Your task to perform on an android device: Clear all items from cart on newegg.com. Add alienware aurora to the cart on newegg.com Image 0: 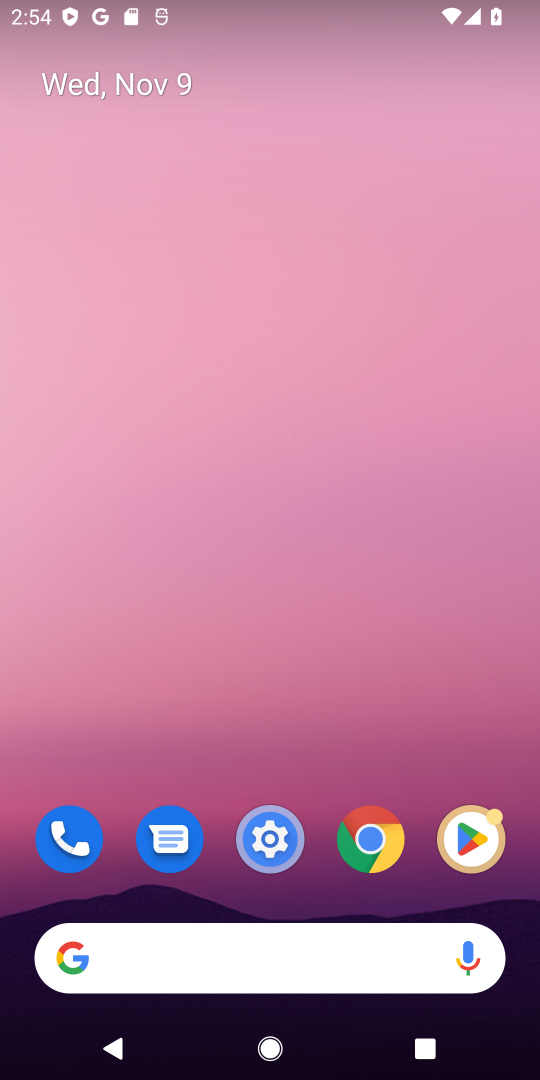
Step 0: drag from (214, 892) to (276, 52)
Your task to perform on an android device: Clear all items from cart on newegg.com. Add alienware aurora to the cart on newegg.com Image 1: 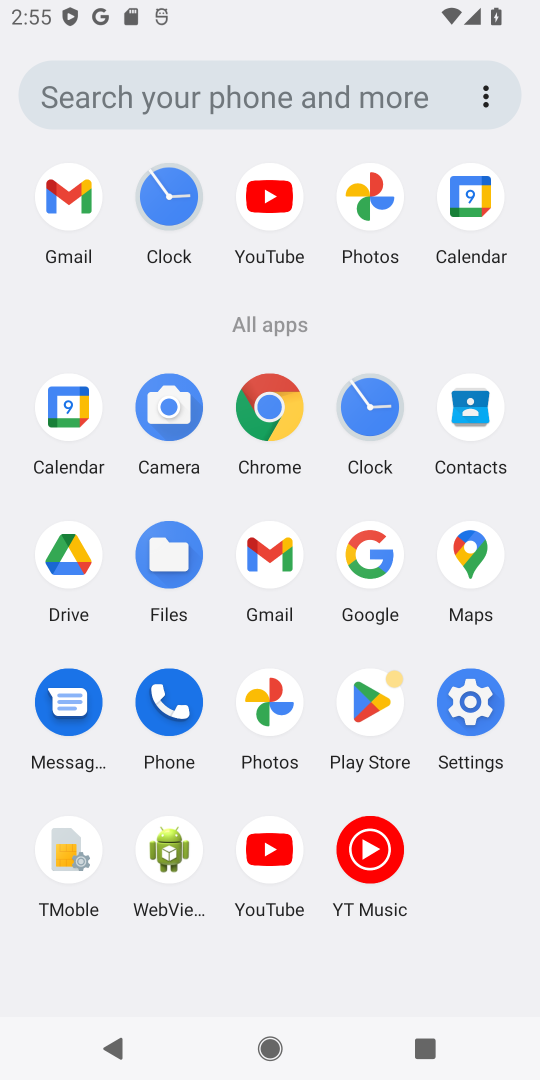
Step 1: click (277, 415)
Your task to perform on an android device: Clear all items from cart on newegg.com. Add alienware aurora to the cart on newegg.com Image 2: 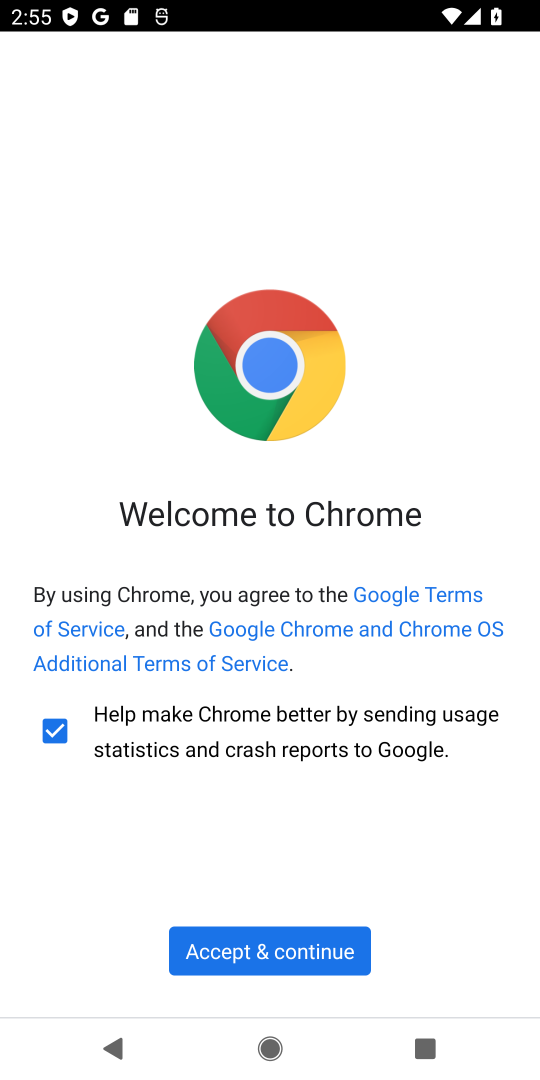
Step 2: click (279, 947)
Your task to perform on an android device: Clear all items from cart on newegg.com. Add alienware aurora to the cart on newegg.com Image 3: 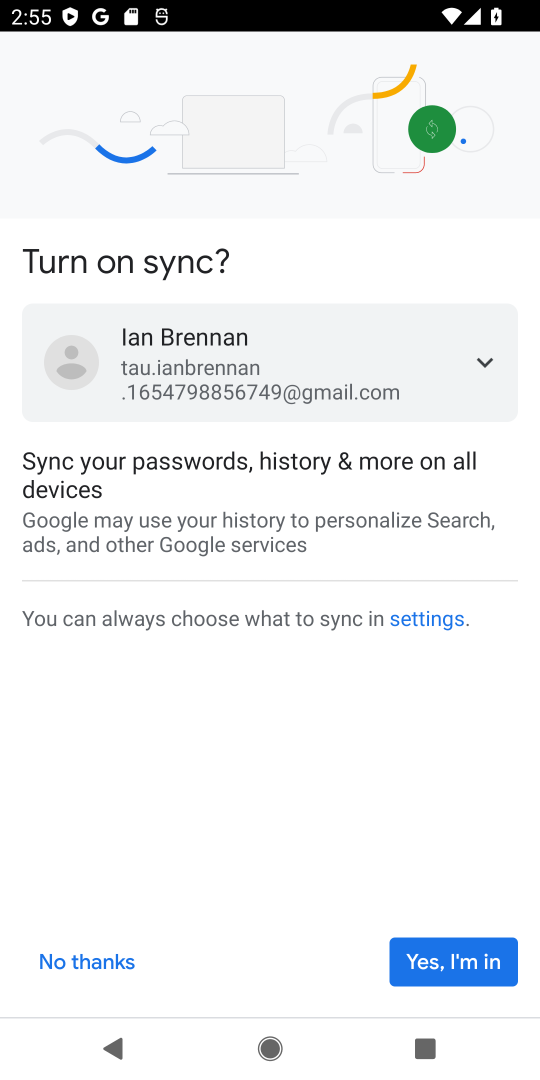
Step 3: click (429, 965)
Your task to perform on an android device: Clear all items from cart on newegg.com. Add alienware aurora to the cart on newegg.com Image 4: 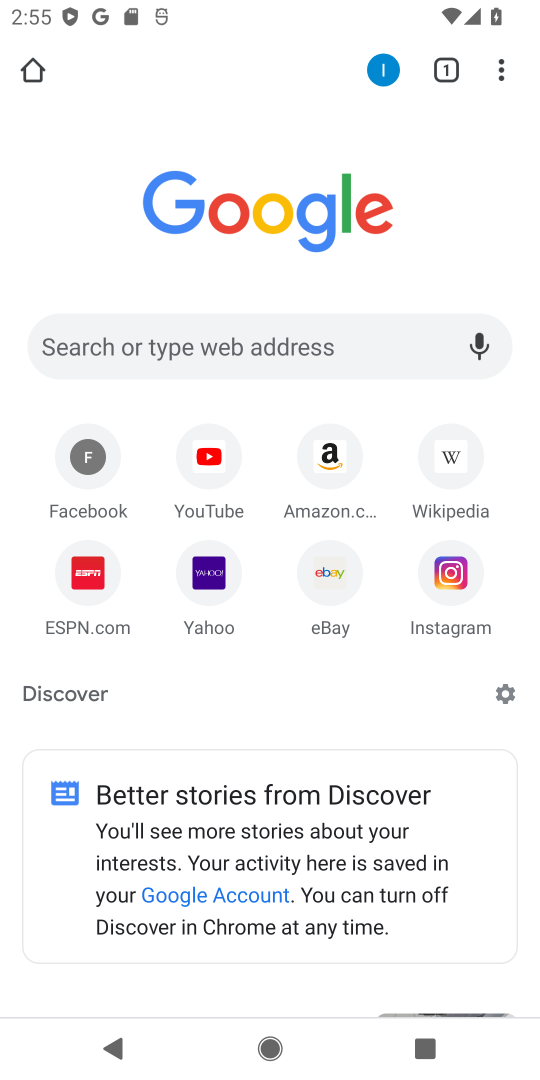
Step 4: click (315, 346)
Your task to perform on an android device: Clear all items from cart on newegg.com. Add alienware aurora to the cart on newegg.com Image 5: 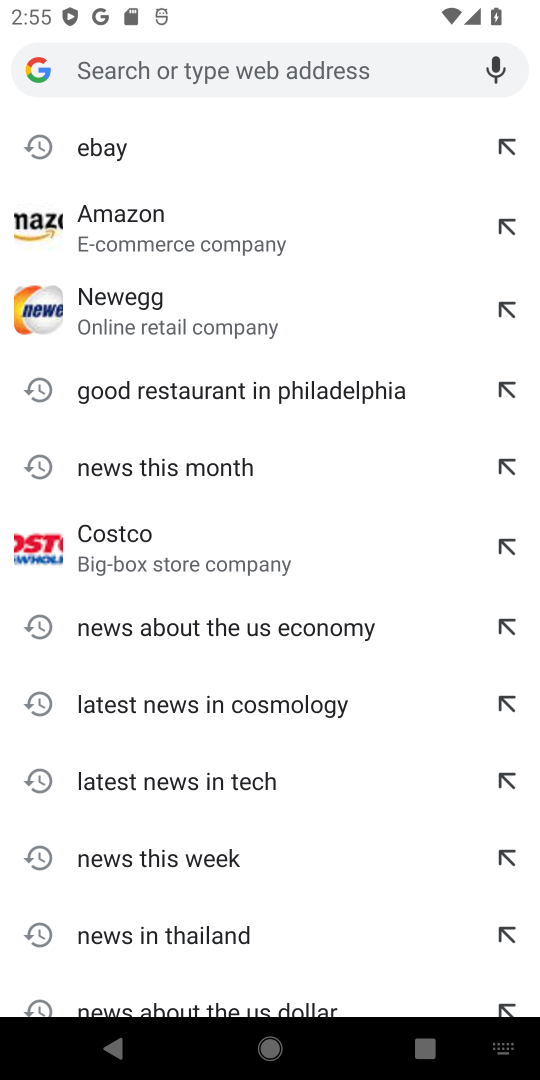
Step 5: click (199, 326)
Your task to perform on an android device: Clear all items from cart on newegg.com. Add alienware aurora to the cart on newegg.com Image 6: 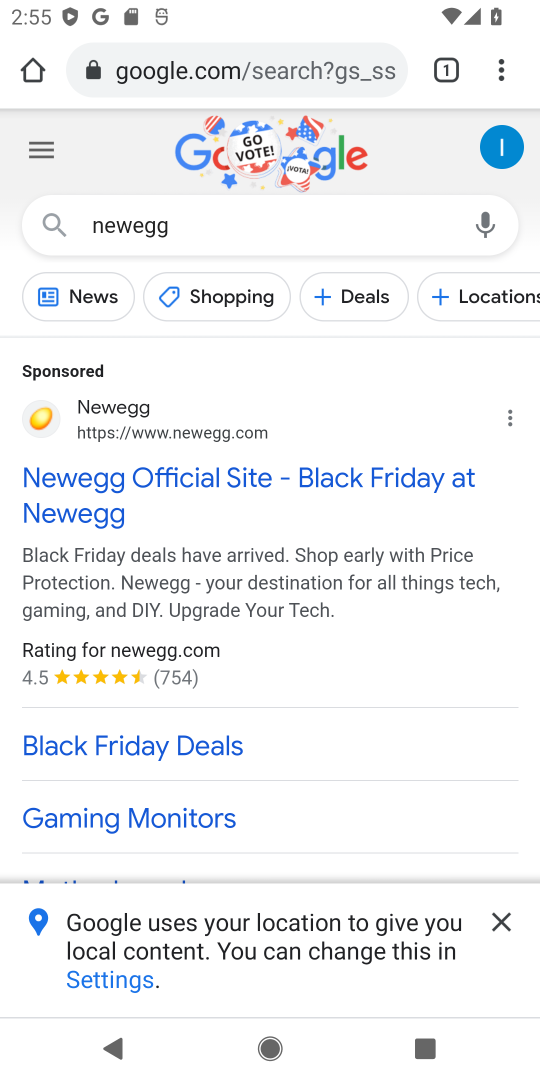
Step 6: drag from (311, 828) to (316, 248)
Your task to perform on an android device: Clear all items from cart on newegg.com. Add alienware aurora to the cart on newegg.com Image 7: 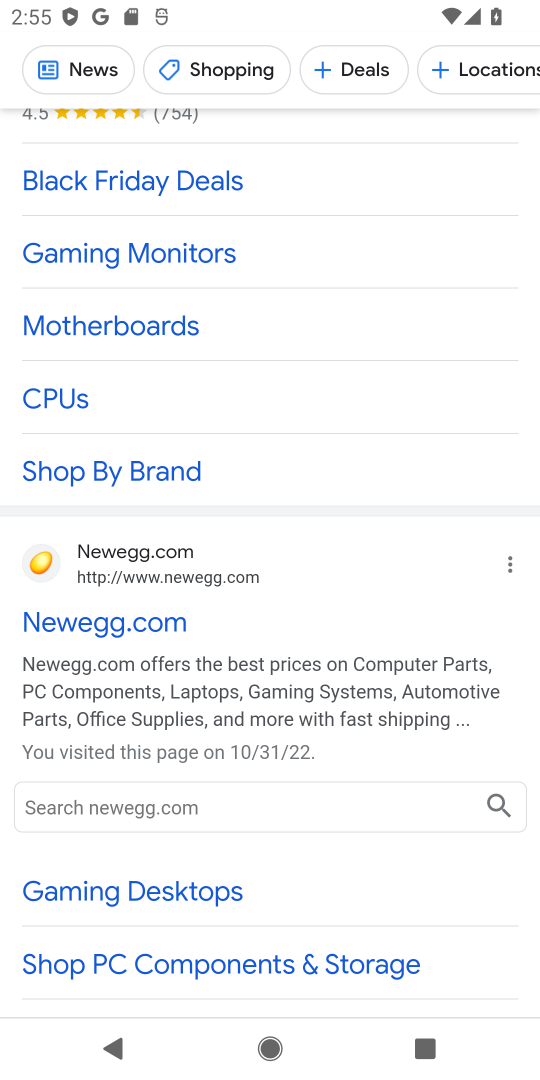
Step 7: click (154, 633)
Your task to perform on an android device: Clear all items from cart on newegg.com. Add alienware aurora to the cart on newegg.com Image 8: 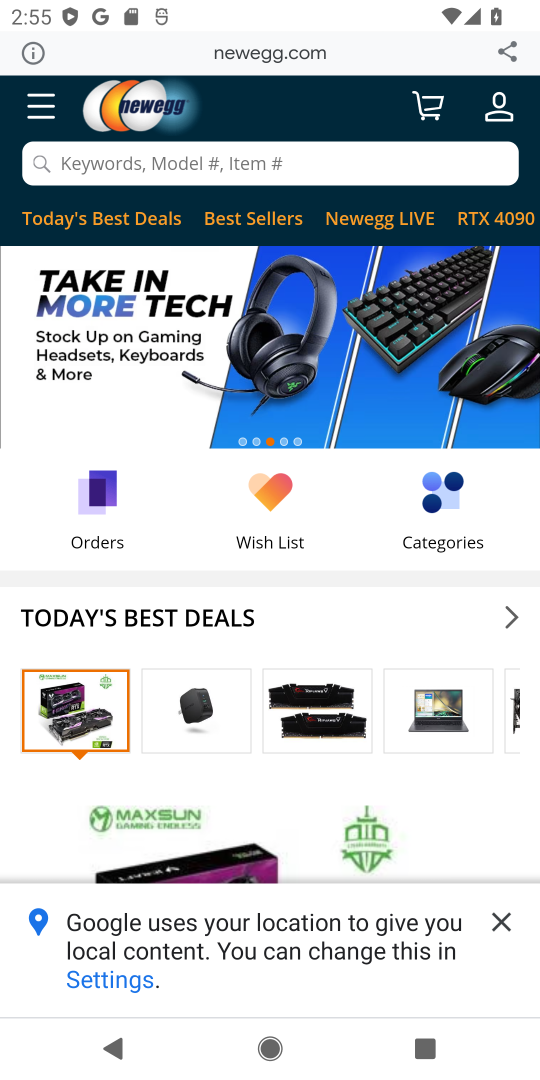
Step 8: click (439, 102)
Your task to perform on an android device: Clear all items from cart on newegg.com. Add alienware aurora to the cart on newegg.com Image 9: 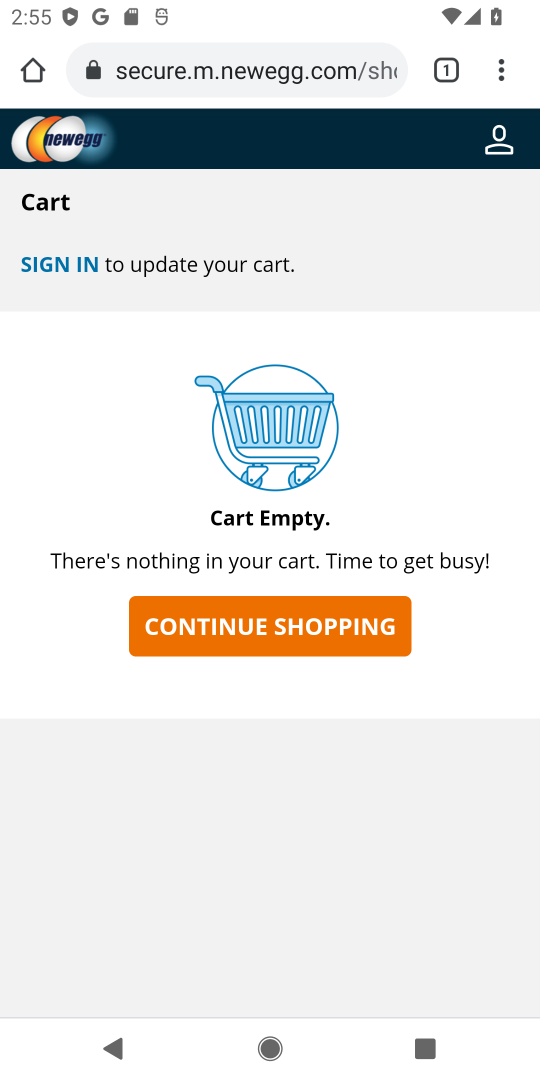
Step 9: click (262, 622)
Your task to perform on an android device: Clear all items from cart on newegg.com. Add alienware aurora to the cart on newegg.com Image 10: 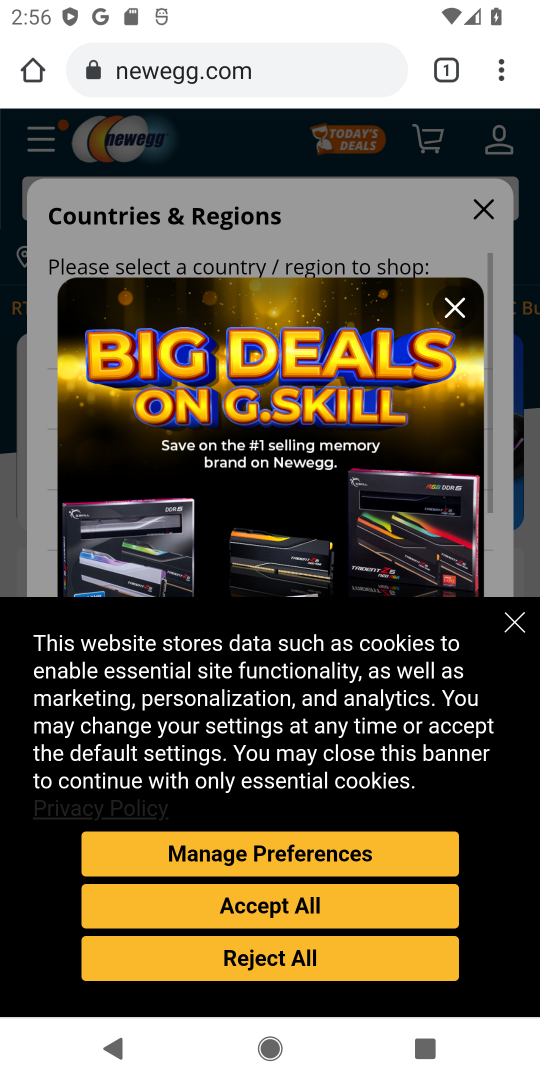
Step 10: click (310, 903)
Your task to perform on an android device: Clear all items from cart on newegg.com. Add alienware aurora to the cart on newegg.com Image 11: 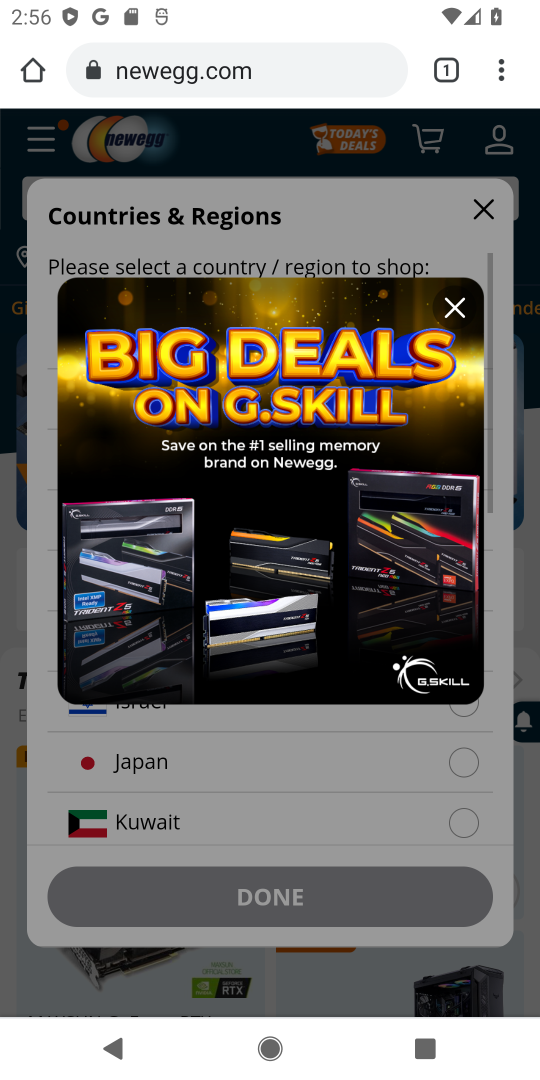
Step 11: click (456, 304)
Your task to perform on an android device: Clear all items from cart on newegg.com. Add alienware aurora to the cart on newegg.com Image 12: 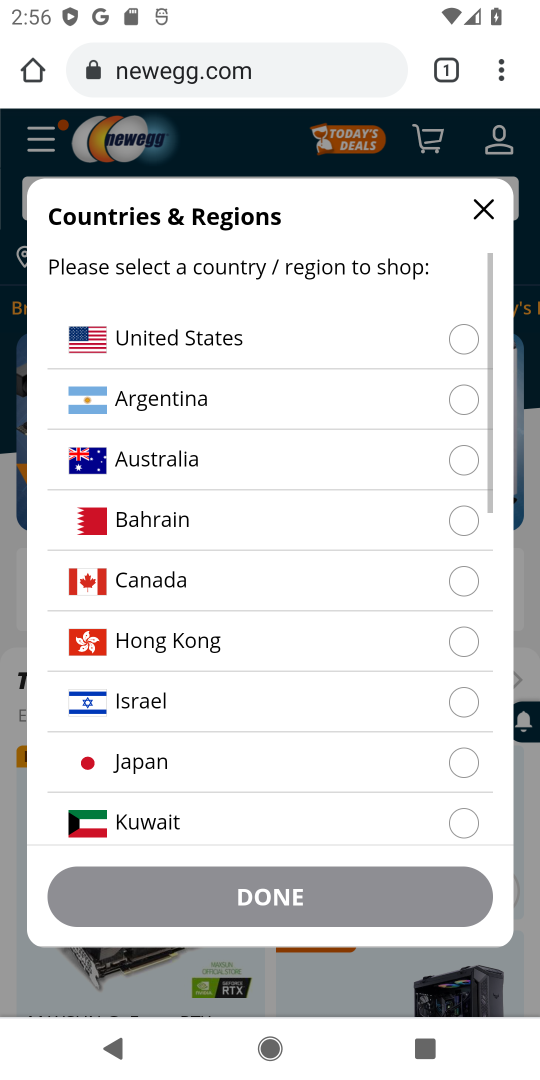
Step 12: click (485, 198)
Your task to perform on an android device: Clear all items from cart on newegg.com. Add alienware aurora to the cart on newegg.com Image 13: 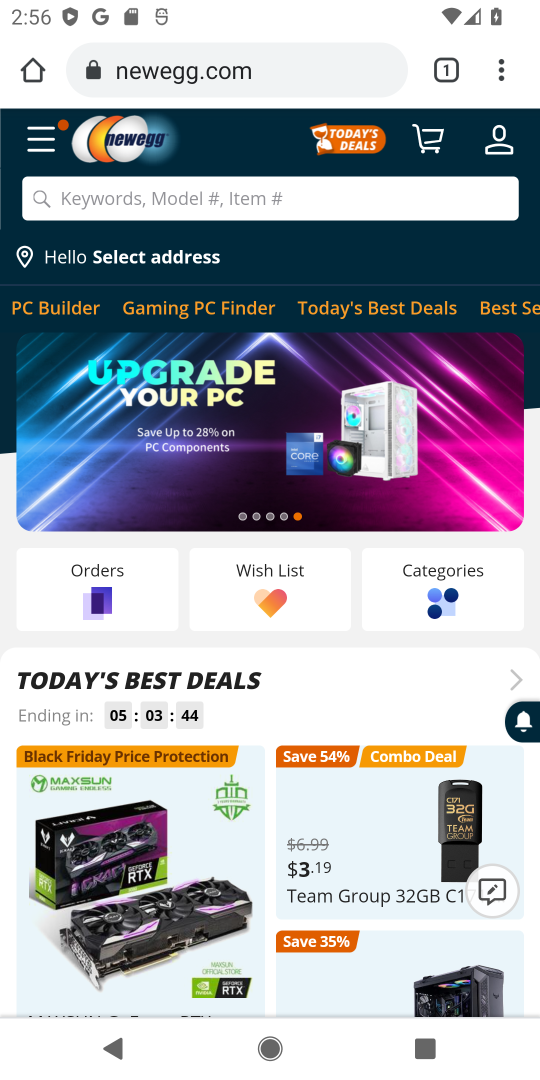
Step 13: click (413, 201)
Your task to perform on an android device: Clear all items from cart on newegg.com. Add alienware aurora to the cart on newegg.com Image 14: 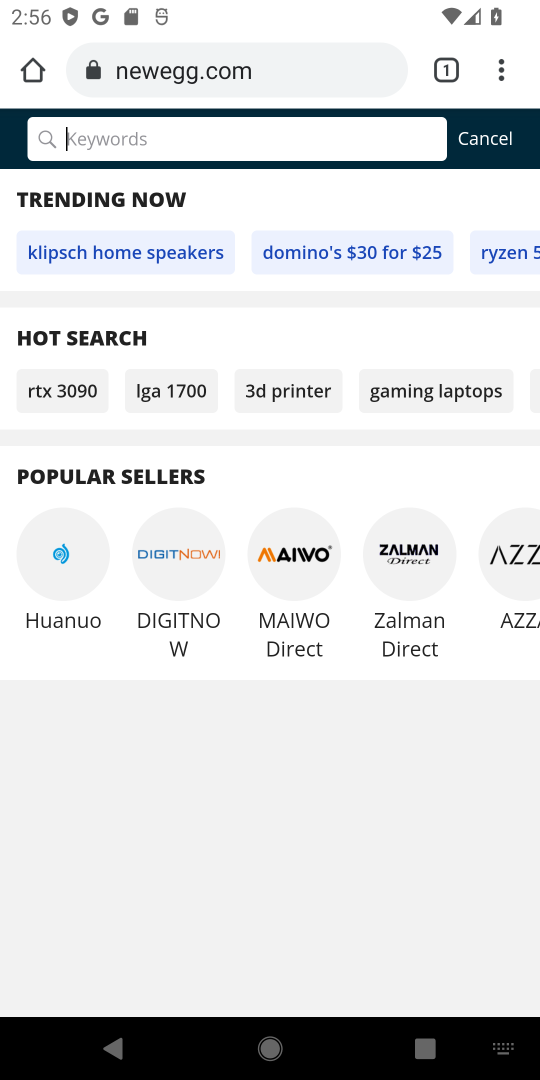
Step 14: click (479, 146)
Your task to perform on an android device: Clear all items from cart on newegg.com. Add alienware aurora to the cart on newegg.com Image 15: 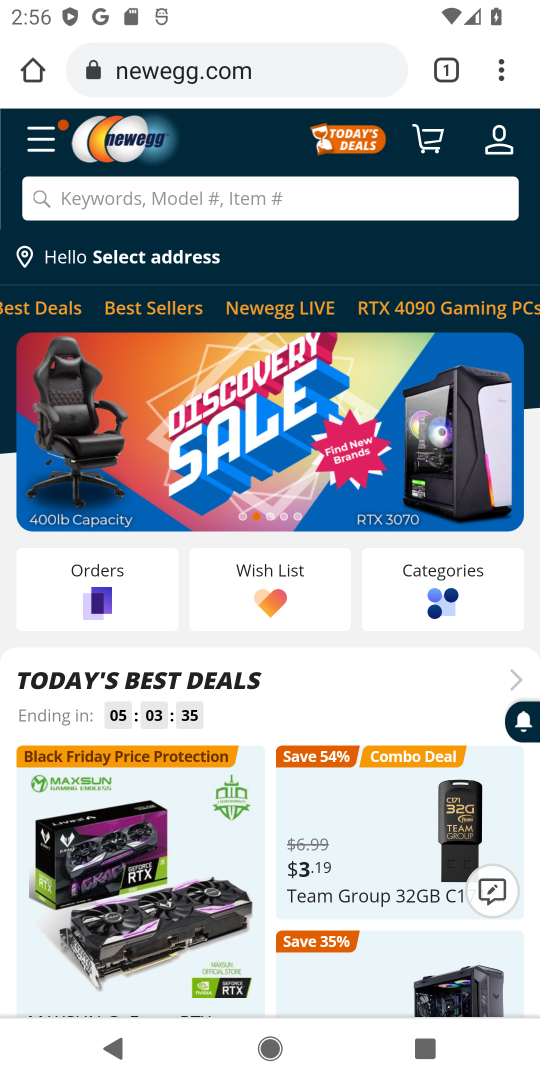
Step 15: click (441, 143)
Your task to perform on an android device: Clear all items from cart on newegg.com. Add alienware aurora to the cart on newegg.com Image 16: 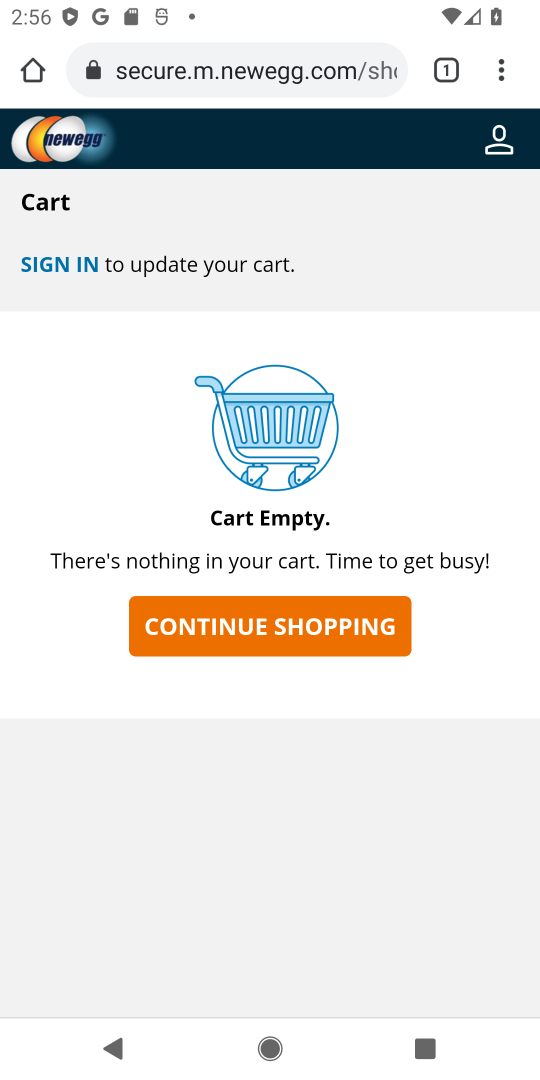
Step 16: click (287, 609)
Your task to perform on an android device: Clear all items from cart on newegg.com. Add alienware aurora to the cart on newegg.com Image 17: 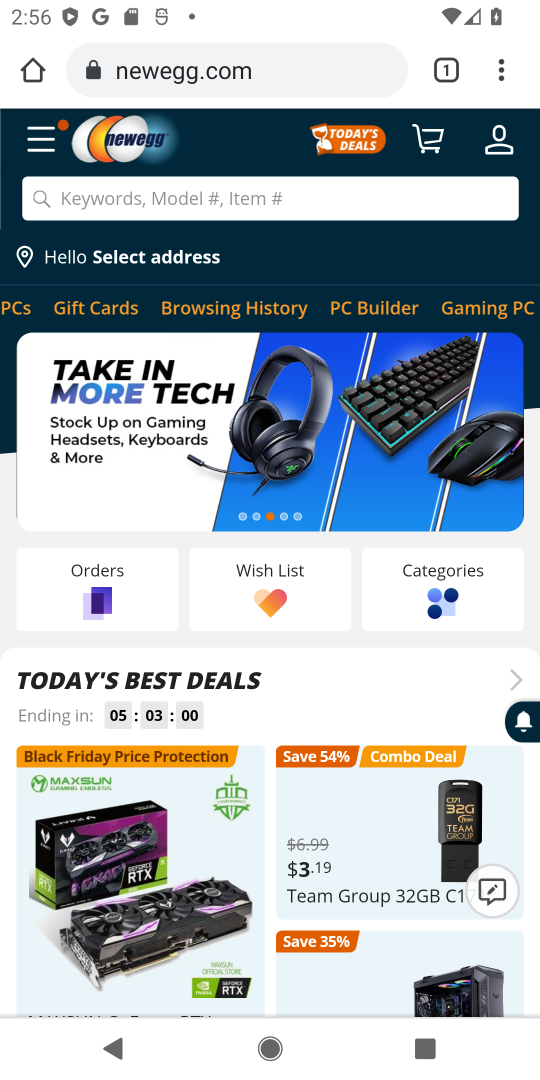
Step 17: click (285, 199)
Your task to perform on an android device: Clear all items from cart on newegg.com. Add alienware aurora to the cart on newegg.com Image 18: 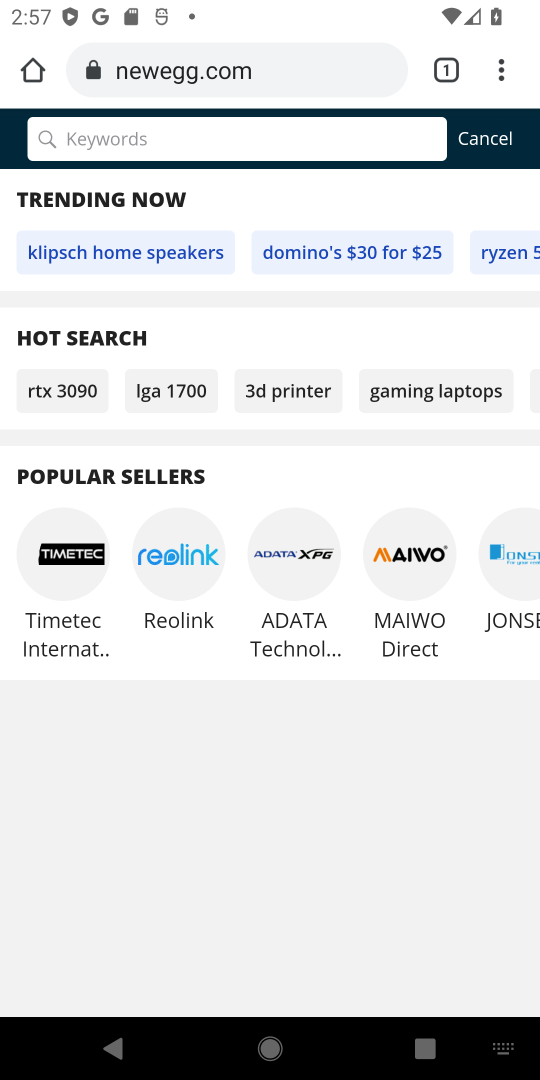
Step 18: type "alienware aurora"
Your task to perform on an android device: Clear all items from cart on newegg.com. Add alienware aurora to the cart on newegg.com Image 19: 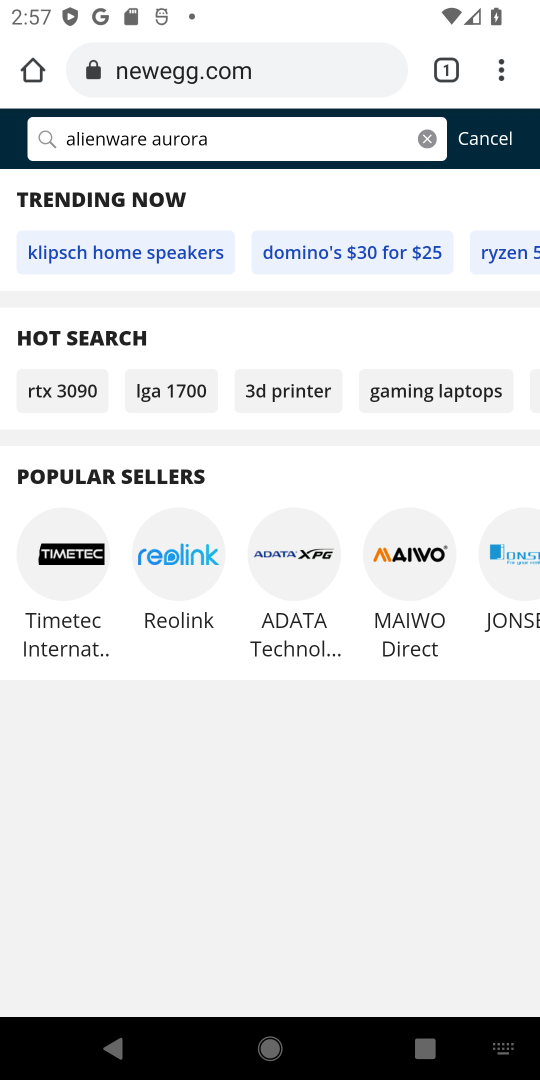
Step 19: press enter
Your task to perform on an android device: Clear all items from cart on newegg.com. Add alienware aurora to the cart on newegg.com Image 20: 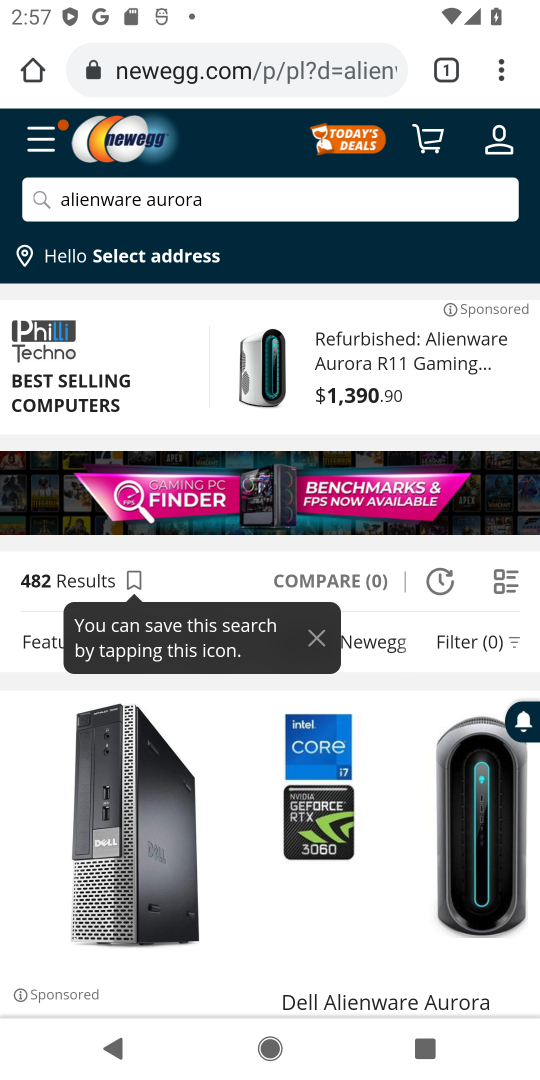
Step 20: drag from (338, 840) to (308, 425)
Your task to perform on an android device: Clear all items from cart on newegg.com. Add alienware aurora to the cart on newegg.com Image 21: 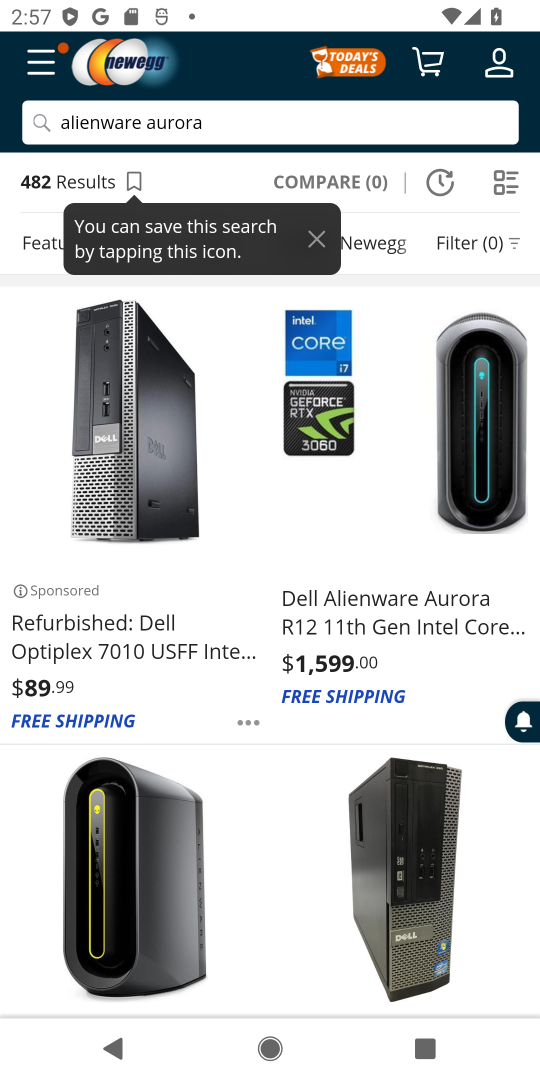
Step 21: click (389, 636)
Your task to perform on an android device: Clear all items from cart on newegg.com. Add alienware aurora to the cart on newegg.com Image 22: 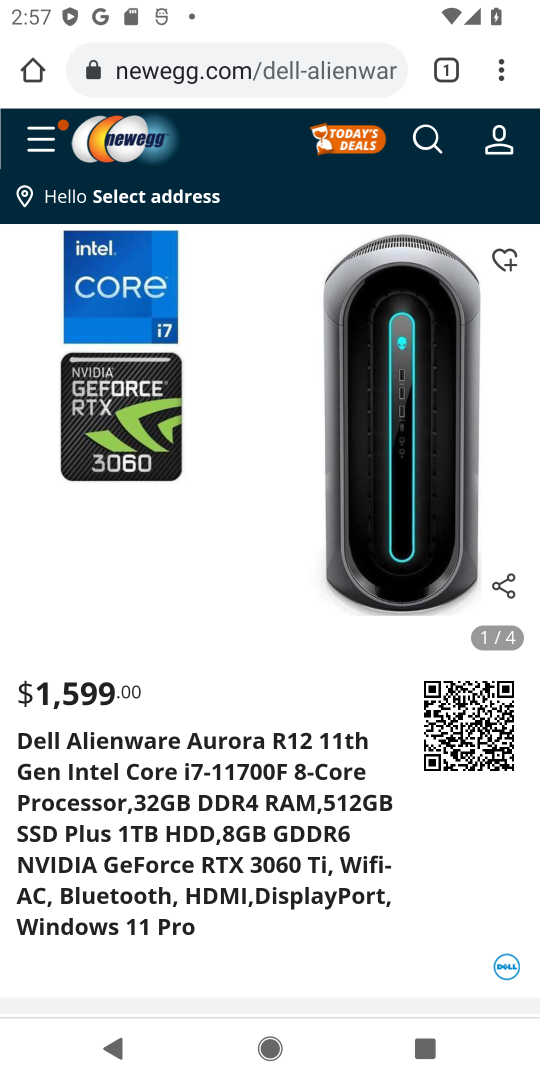
Step 22: drag from (187, 843) to (203, 525)
Your task to perform on an android device: Clear all items from cart on newegg.com. Add alienware aurora to the cart on newegg.com Image 23: 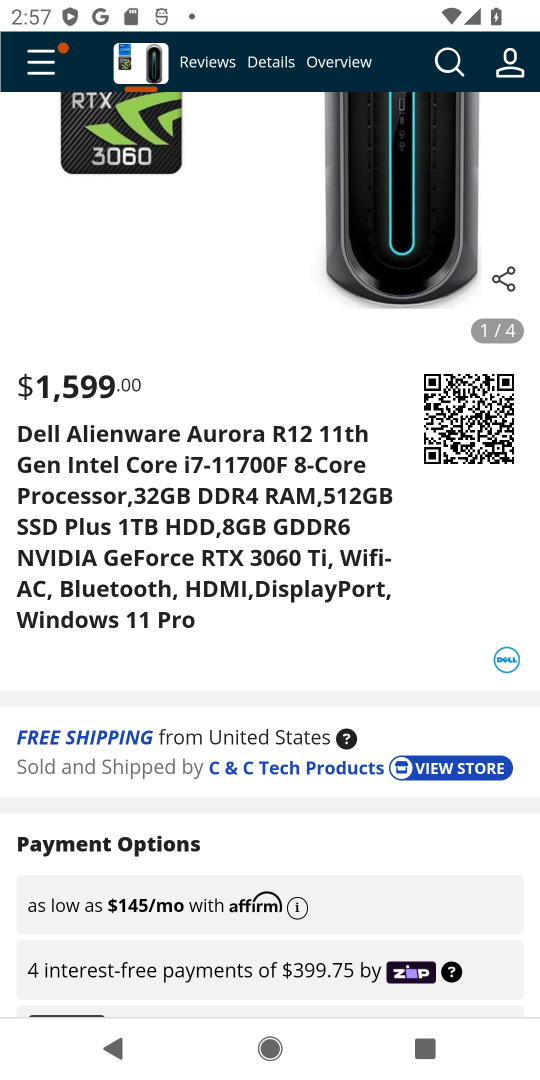
Step 23: click (262, 982)
Your task to perform on an android device: Clear all items from cart on newegg.com. Add alienware aurora to the cart on newegg.com Image 24: 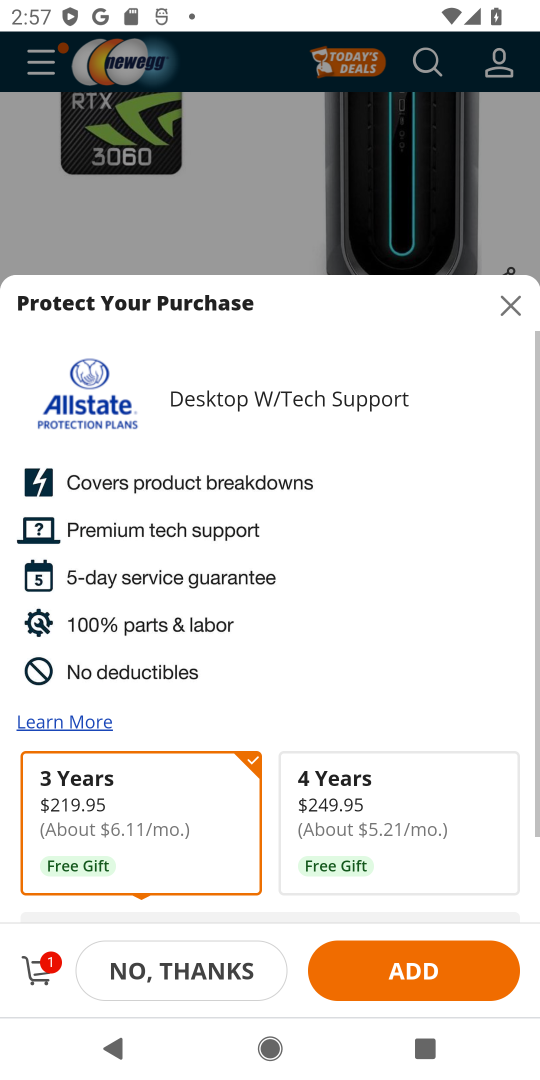
Step 24: task complete